Your task to perform on an android device: see tabs open on other devices in the chrome app Image 0: 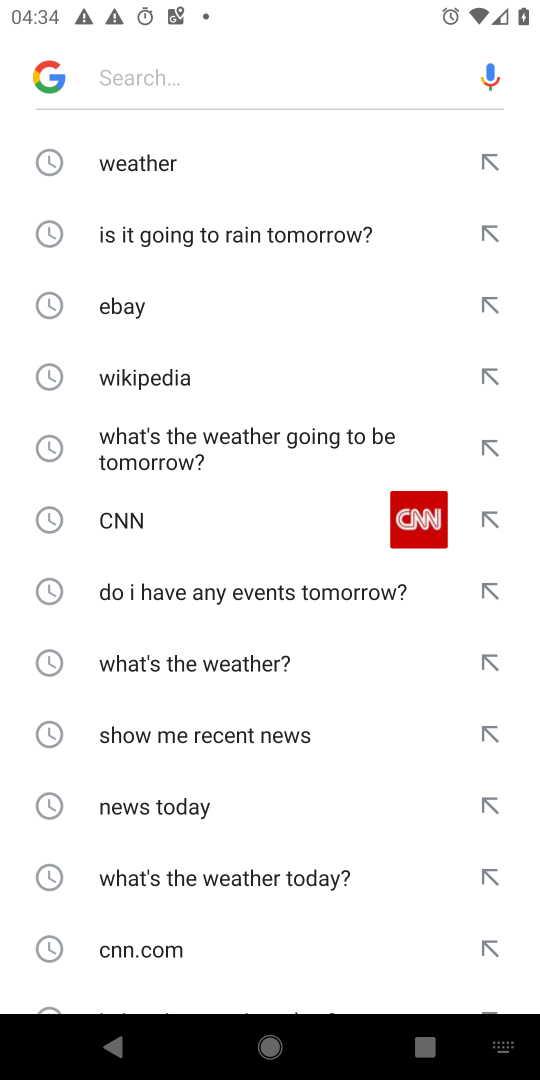
Step 0: press home button
Your task to perform on an android device: see tabs open on other devices in the chrome app Image 1: 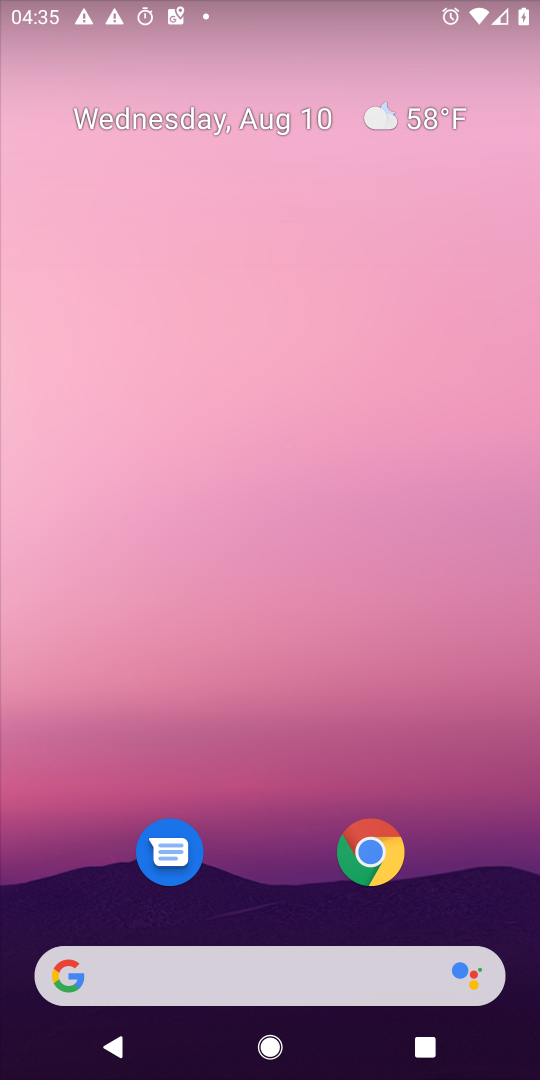
Step 1: drag from (289, 882) to (114, 149)
Your task to perform on an android device: see tabs open on other devices in the chrome app Image 2: 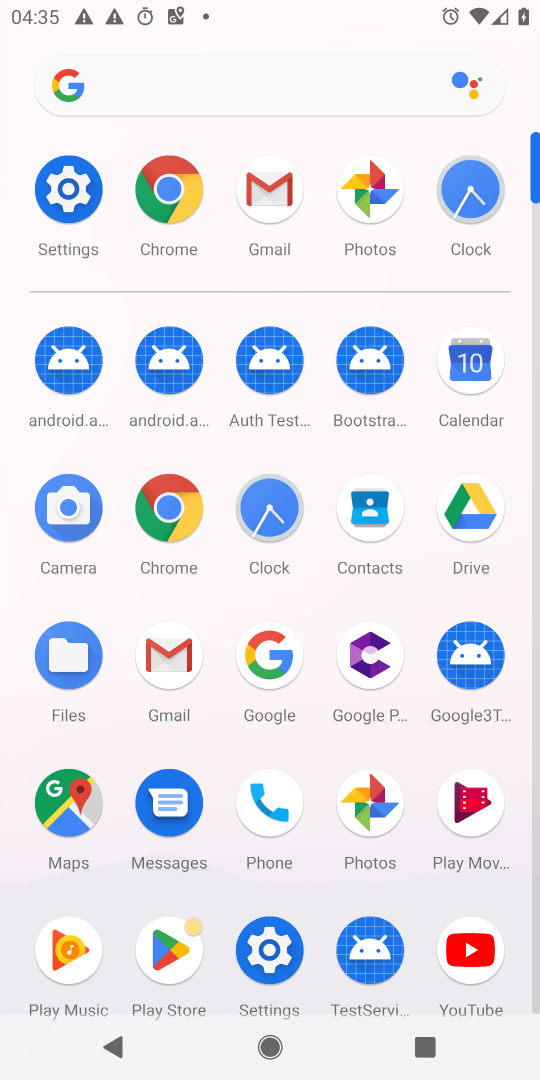
Step 2: click (165, 514)
Your task to perform on an android device: see tabs open on other devices in the chrome app Image 3: 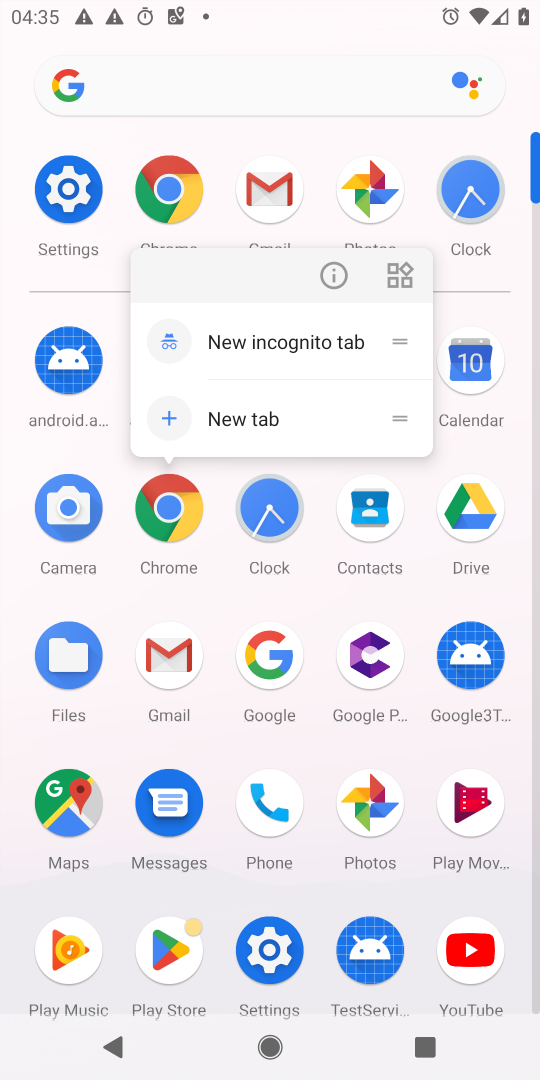
Step 3: click (175, 508)
Your task to perform on an android device: see tabs open on other devices in the chrome app Image 4: 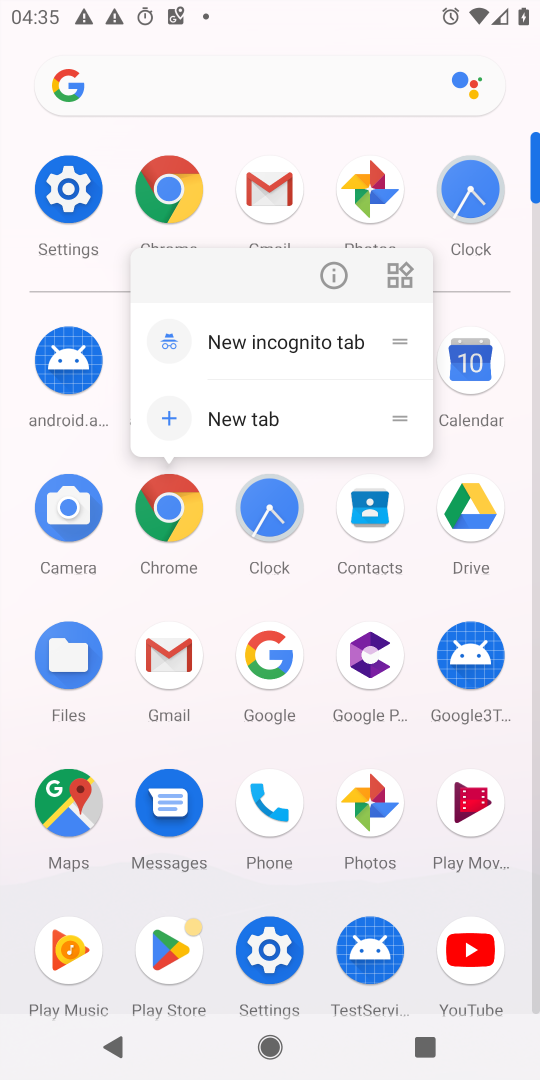
Step 4: click (179, 508)
Your task to perform on an android device: see tabs open on other devices in the chrome app Image 5: 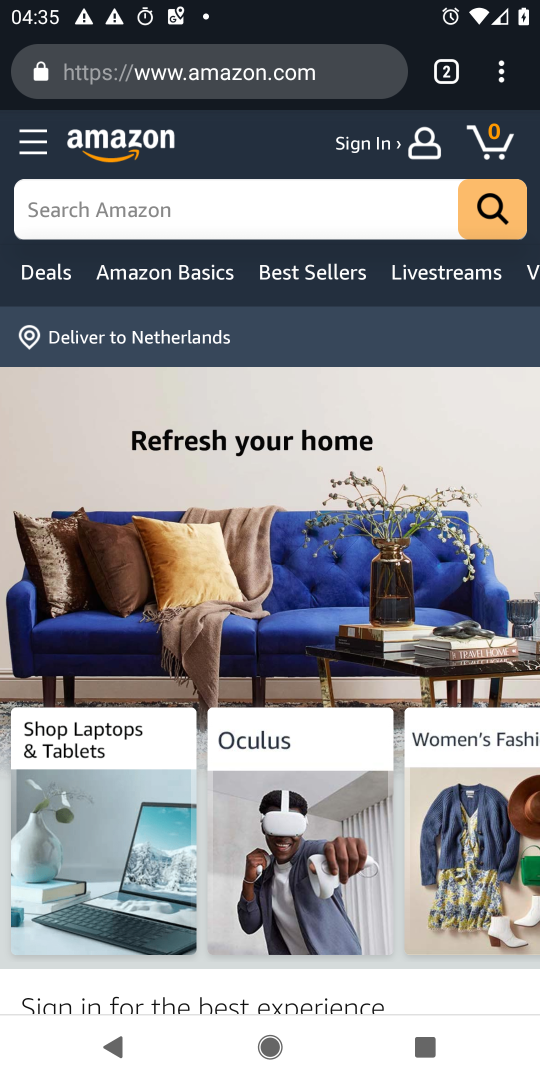
Step 5: drag from (501, 64) to (329, 375)
Your task to perform on an android device: see tabs open on other devices in the chrome app Image 6: 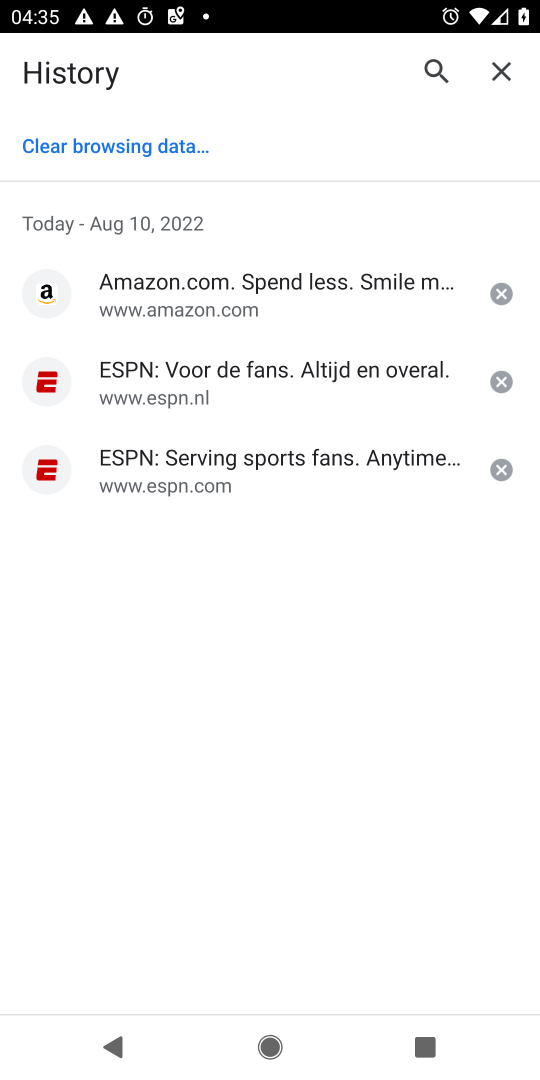
Step 6: click (513, 75)
Your task to perform on an android device: see tabs open on other devices in the chrome app Image 7: 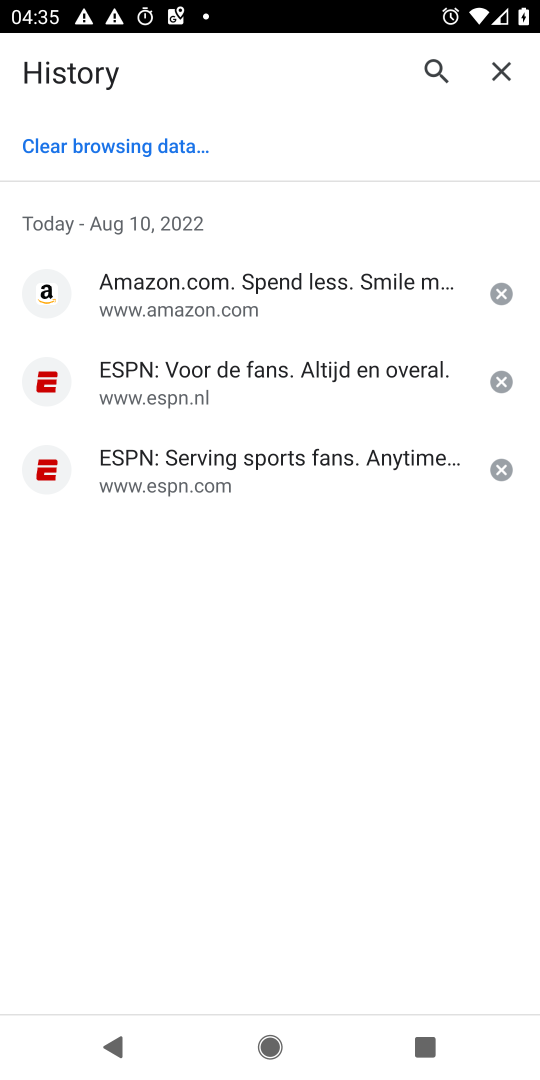
Step 7: click (504, 66)
Your task to perform on an android device: see tabs open on other devices in the chrome app Image 8: 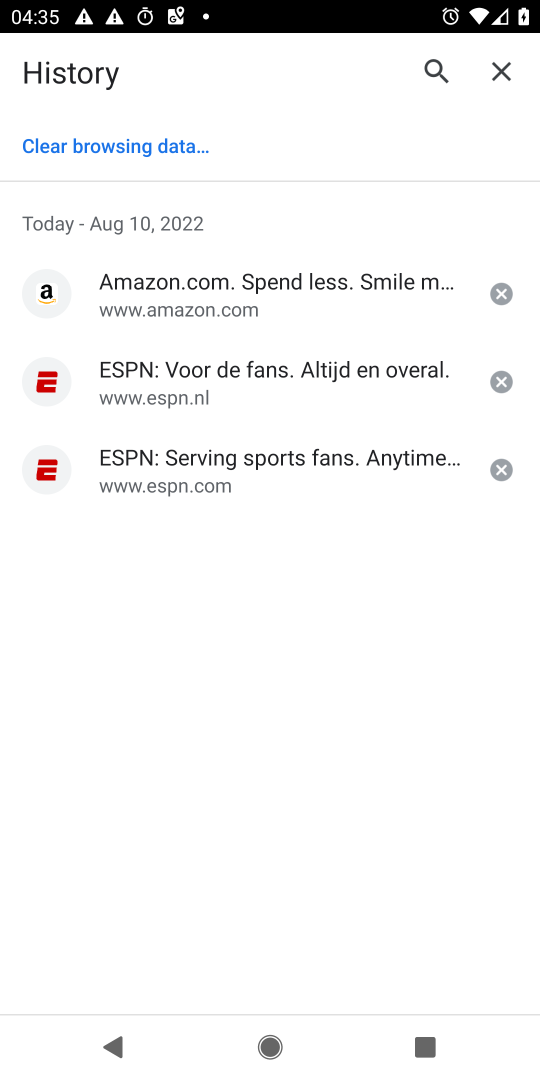
Step 8: task complete